Your task to perform on an android device: Go to Android settings Image 0: 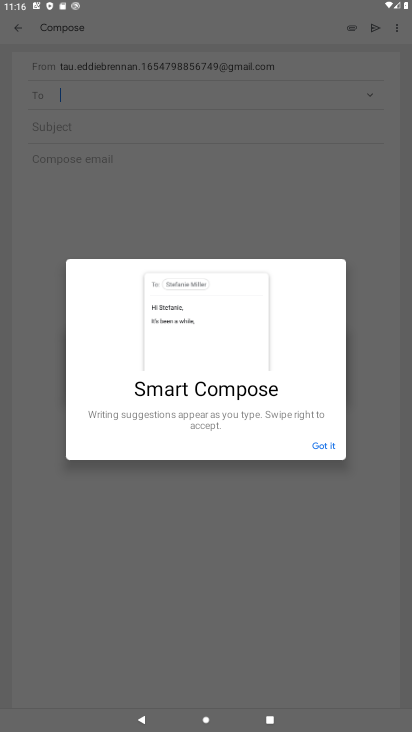
Step 0: press home button
Your task to perform on an android device: Go to Android settings Image 1: 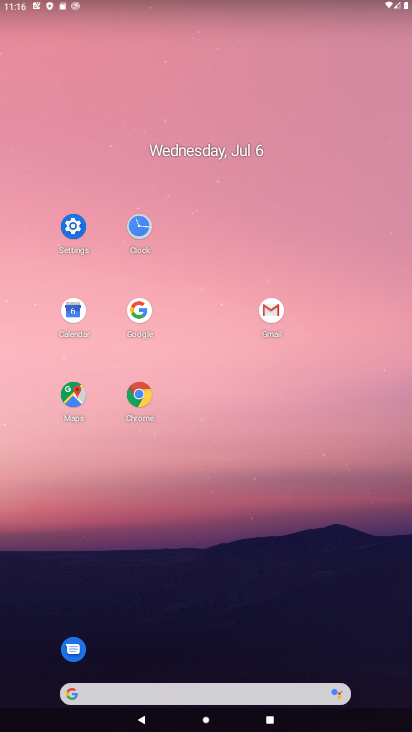
Step 1: click (79, 226)
Your task to perform on an android device: Go to Android settings Image 2: 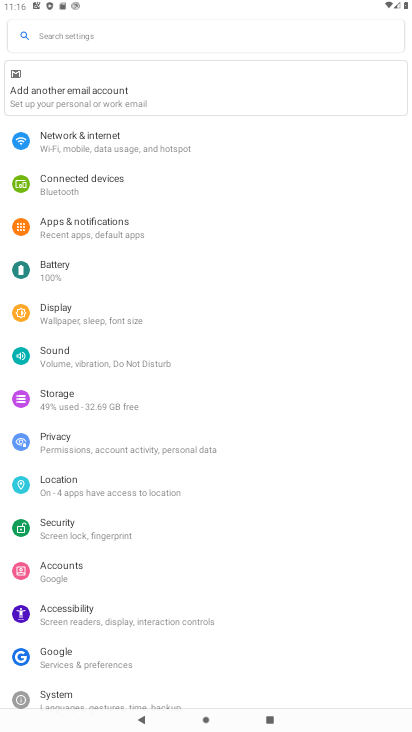
Step 2: task complete